Your task to perform on an android device: Show me popular games on the Play Store Image 0: 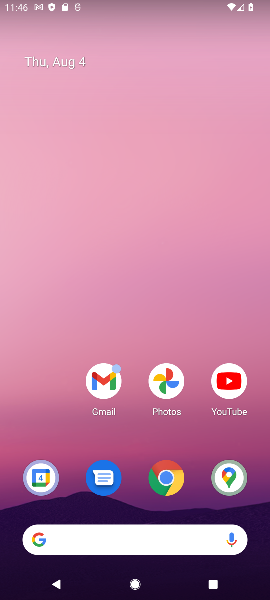
Step 0: drag from (98, 299) to (137, 48)
Your task to perform on an android device: Show me popular games on the Play Store Image 1: 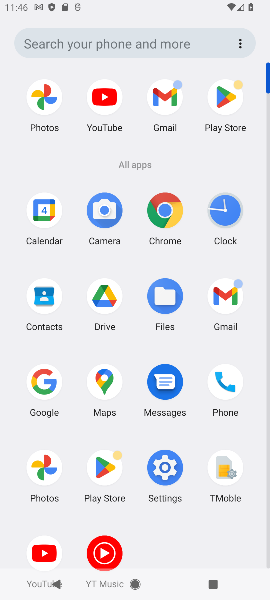
Step 1: click (107, 469)
Your task to perform on an android device: Show me popular games on the Play Store Image 2: 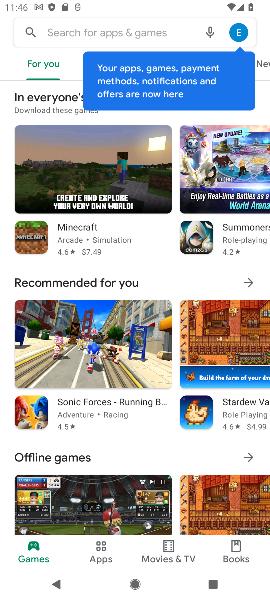
Step 2: click (94, 21)
Your task to perform on an android device: Show me popular games on the Play Store Image 3: 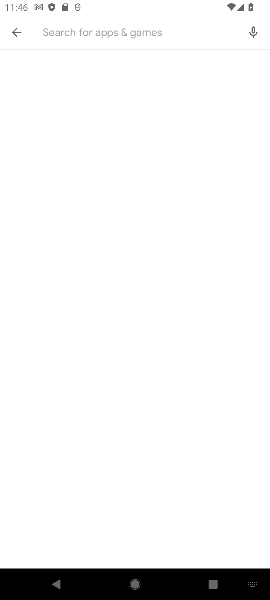
Step 3: type " popular games"
Your task to perform on an android device: Show me popular games on the Play Store Image 4: 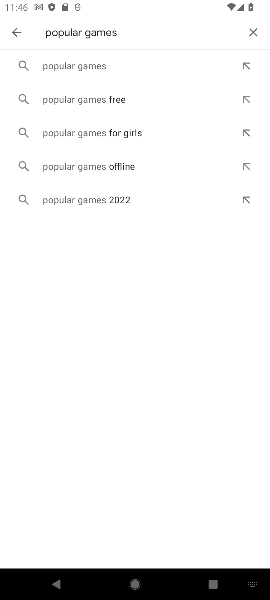
Step 4: click (62, 63)
Your task to perform on an android device: Show me popular games on the Play Store Image 5: 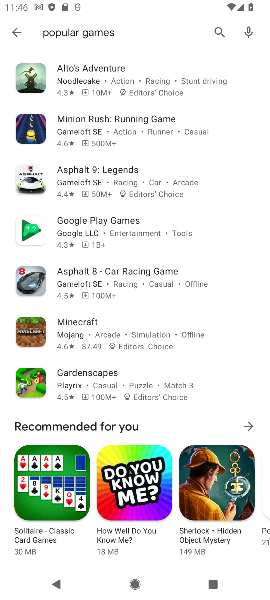
Step 5: task complete